Your task to perform on an android device: toggle notifications settings in the gmail app Image 0: 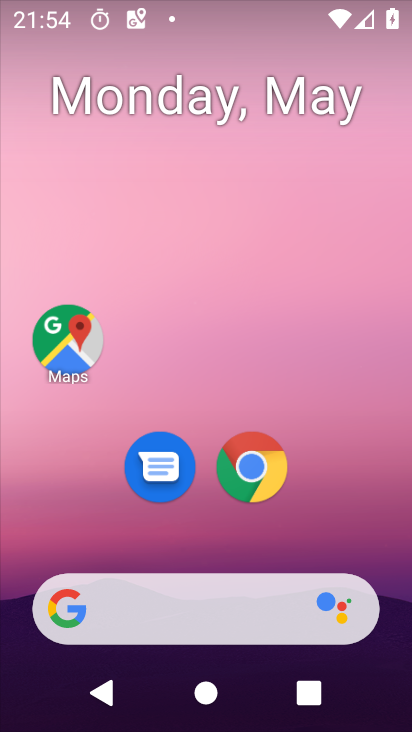
Step 0: drag from (261, 650) to (232, 2)
Your task to perform on an android device: toggle notifications settings in the gmail app Image 1: 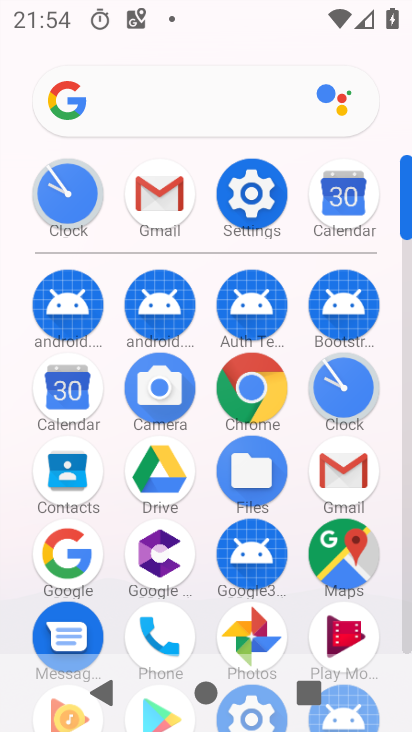
Step 1: click (171, 170)
Your task to perform on an android device: toggle notifications settings in the gmail app Image 2: 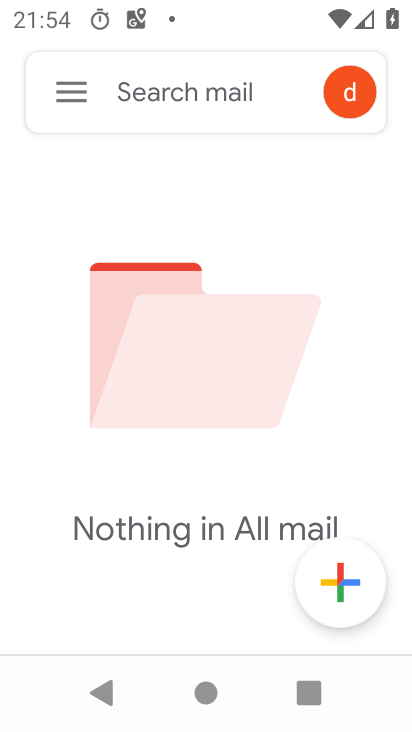
Step 2: click (75, 100)
Your task to perform on an android device: toggle notifications settings in the gmail app Image 3: 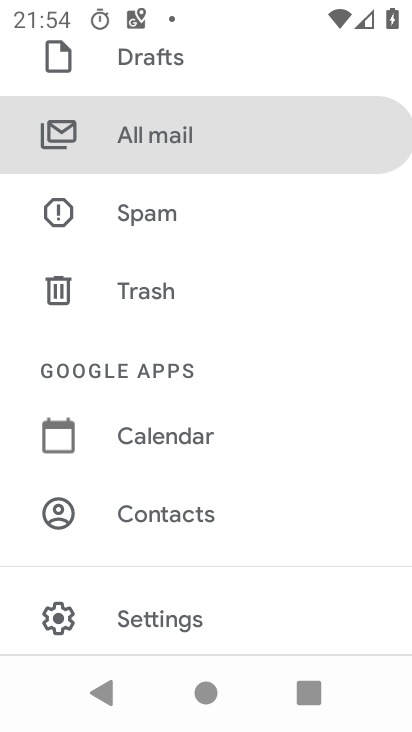
Step 3: click (147, 617)
Your task to perform on an android device: toggle notifications settings in the gmail app Image 4: 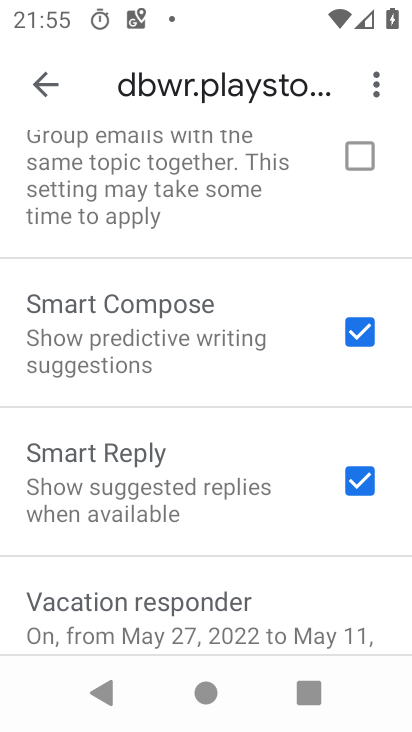
Step 4: drag from (148, 199) to (166, 581)
Your task to perform on an android device: toggle notifications settings in the gmail app Image 5: 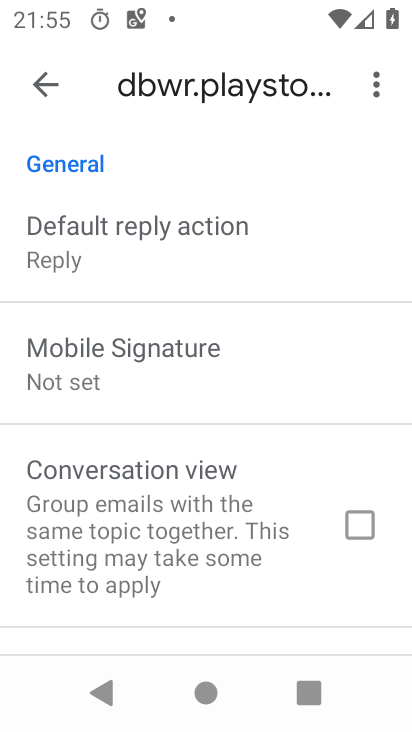
Step 5: drag from (151, 299) to (134, 566)
Your task to perform on an android device: toggle notifications settings in the gmail app Image 6: 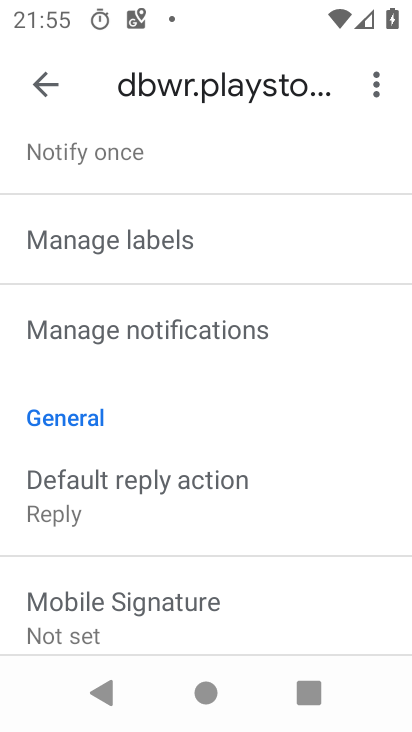
Step 6: drag from (110, 237) to (119, 323)
Your task to perform on an android device: toggle notifications settings in the gmail app Image 7: 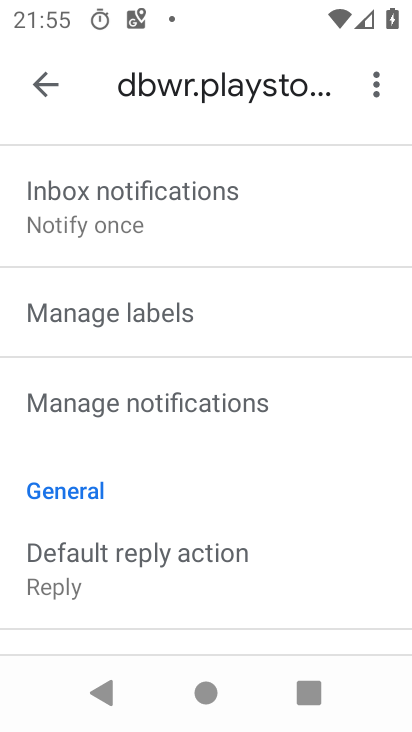
Step 7: drag from (114, 191) to (133, 355)
Your task to perform on an android device: toggle notifications settings in the gmail app Image 8: 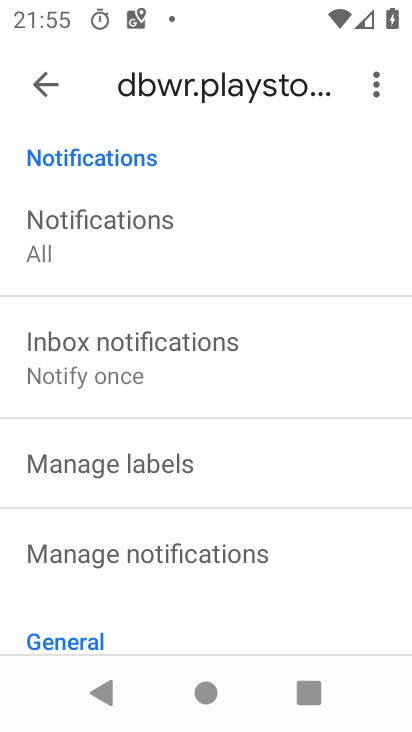
Step 8: click (108, 201)
Your task to perform on an android device: toggle notifications settings in the gmail app Image 9: 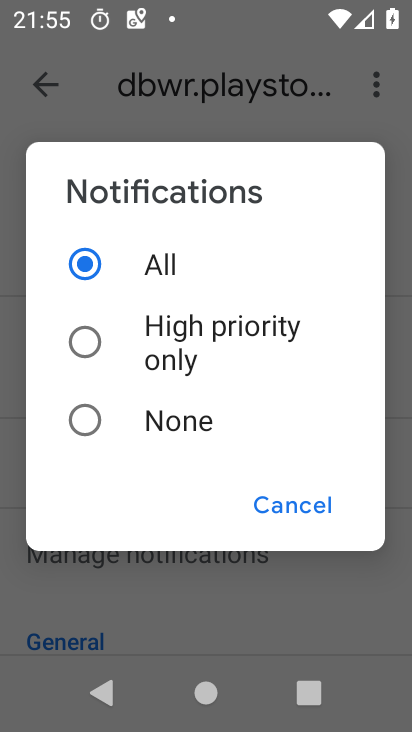
Step 9: task complete